Your task to perform on an android device: see sites visited before in the chrome app Image 0: 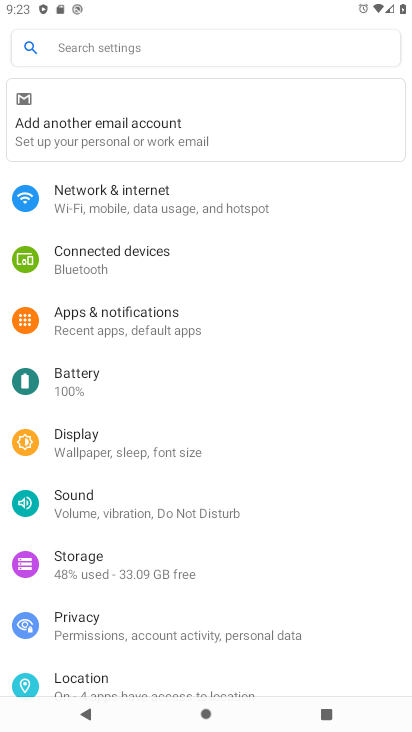
Step 0: press home button
Your task to perform on an android device: see sites visited before in the chrome app Image 1: 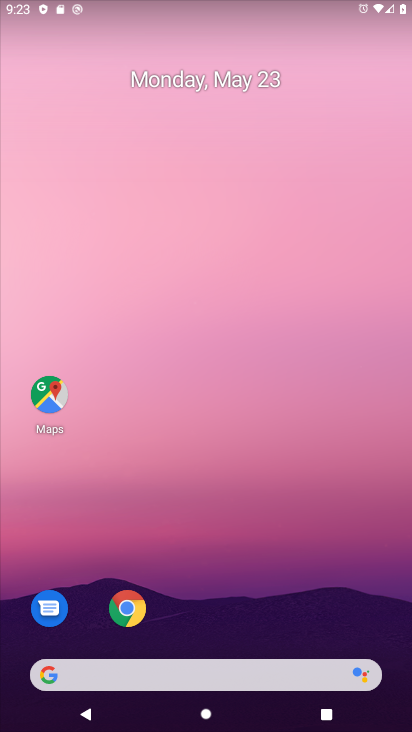
Step 1: click (134, 605)
Your task to perform on an android device: see sites visited before in the chrome app Image 2: 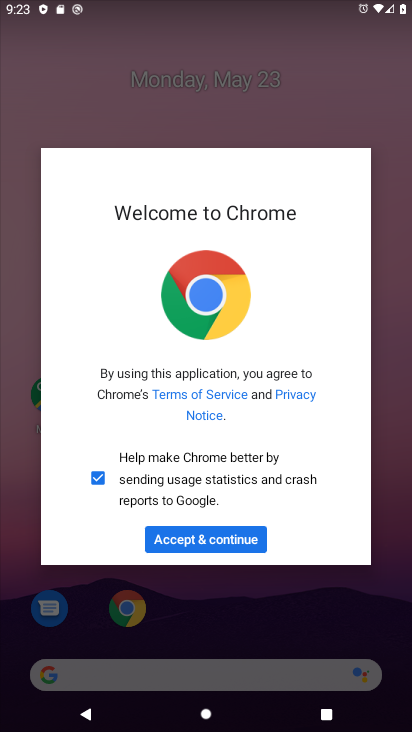
Step 2: click (257, 544)
Your task to perform on an android device: see sites visited before in the chrome app Image 3: 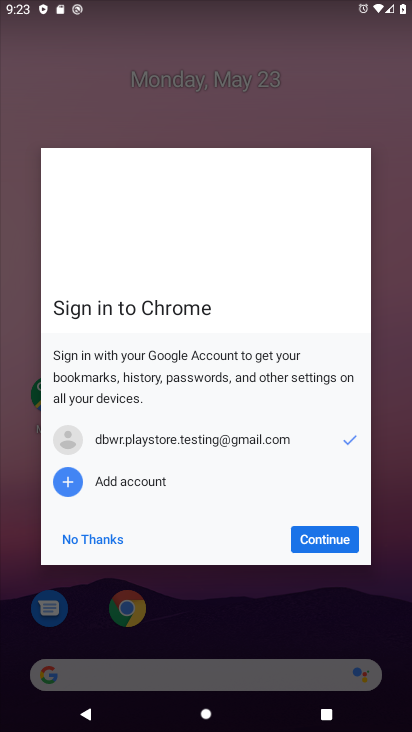
Step 3: click (304, 552)
Your task to perform on an android device: see sites visited before in the chrome app Image 4: 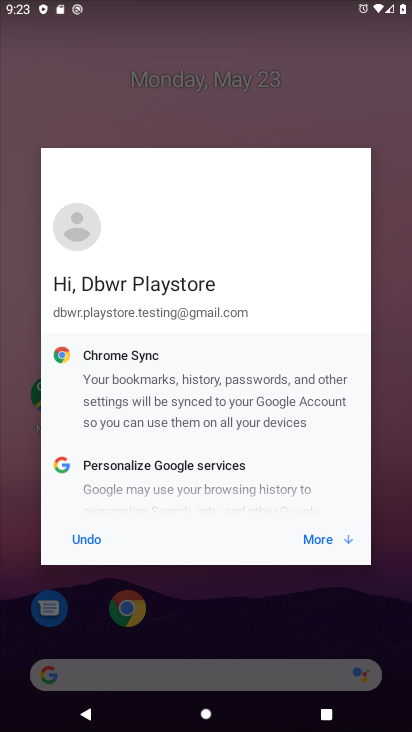
Step 4: click (306, 551)
Your task to perform on an android device: see sites visited before in the chrome app Image 5: 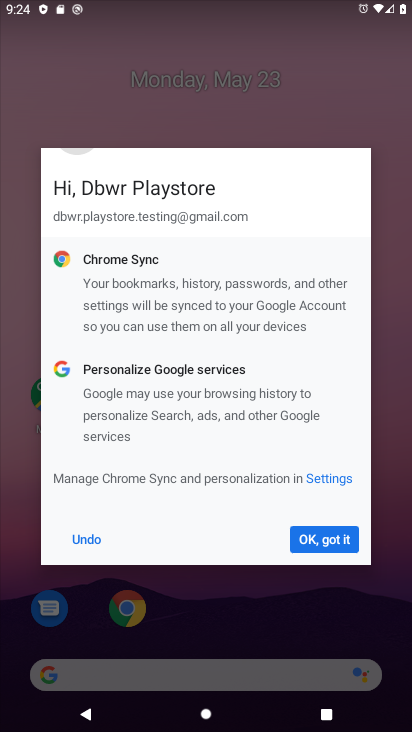
Step 5: click (306, 542)
Your task to perform on an android device: see sites visited before in the chrome app Image 6: 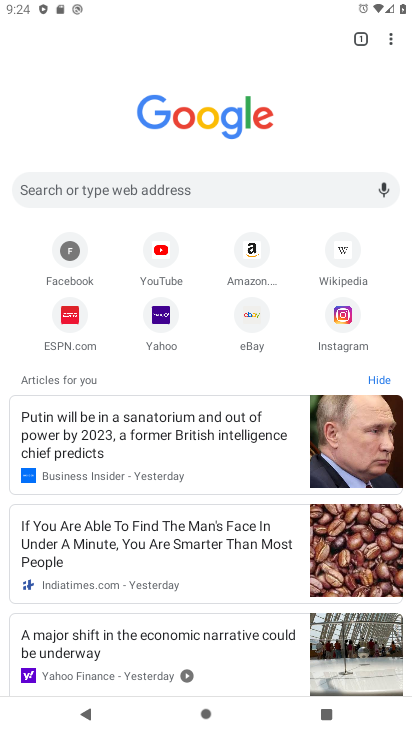
Step 6: click (397, 36)
Your task to perform on an android device: see sites visited before in the chrome app Image 7: 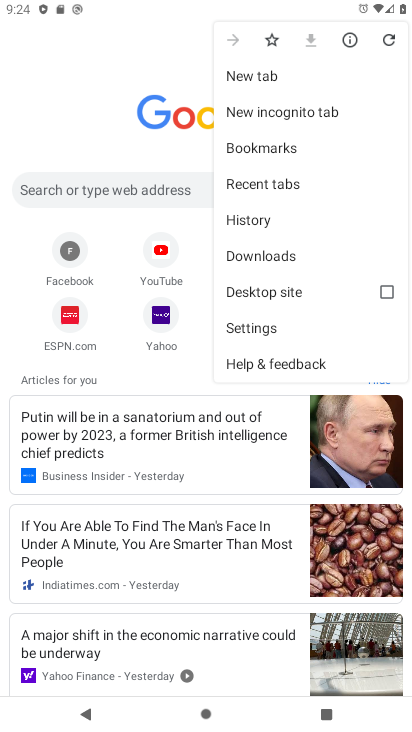
Step 7: click (274, 224)
Your task to perform on an android device: see sites visited before in the chrome app Image 8: 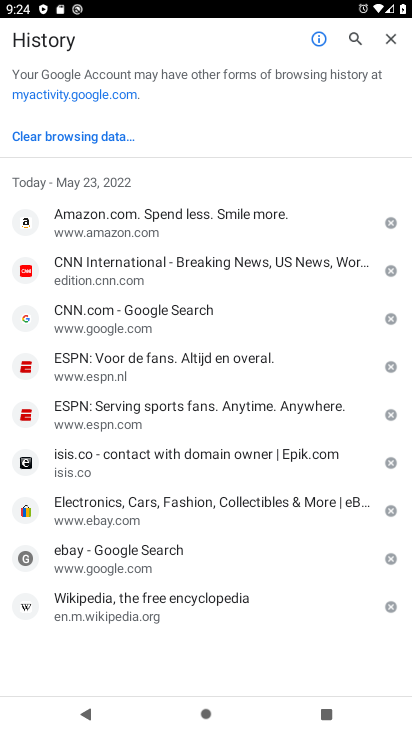
Step 8: task complete